Your task to perform on an android device: Go to Amazon Image 0: 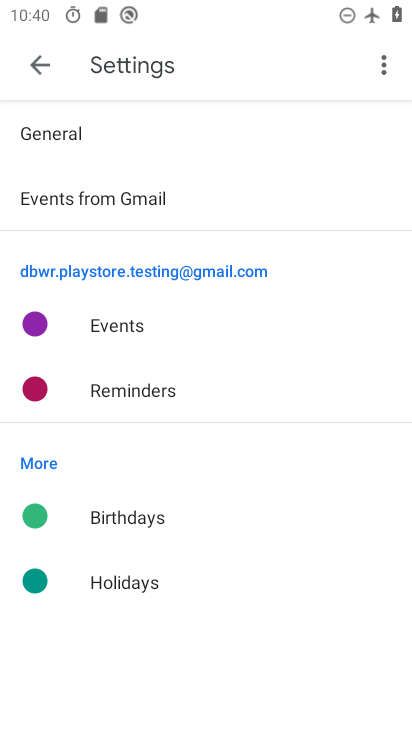
Step 0: press home button
Your task to perform on an android device: Go to Amazon Image 1: 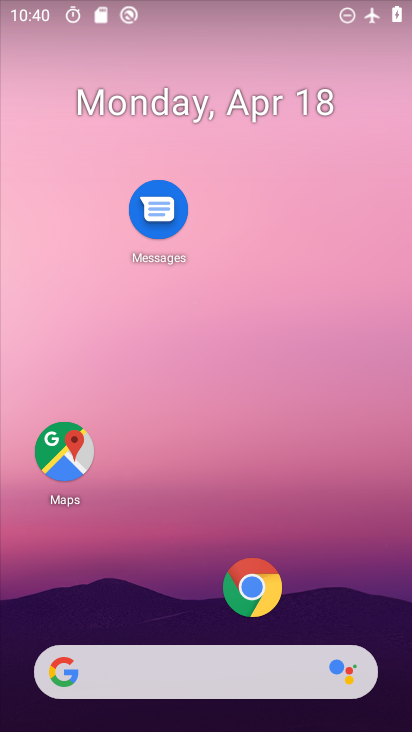
Step 1: click (251, 582)
Your task to perform on an android device: Go to Amazon Image 2: 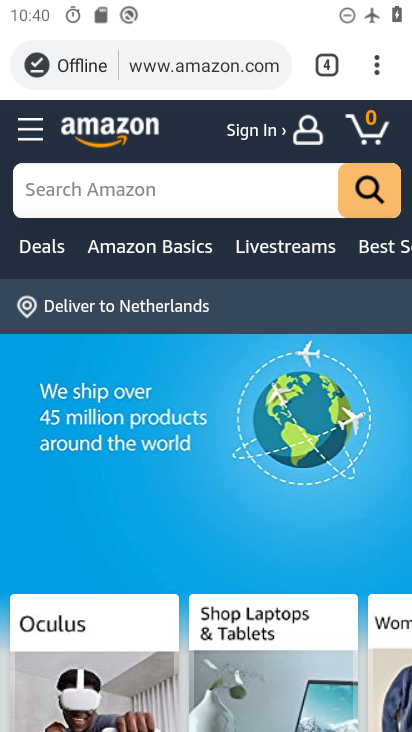
Step 2: task complete